Your task to perform on an android device: When is my next appointment? Image 0: 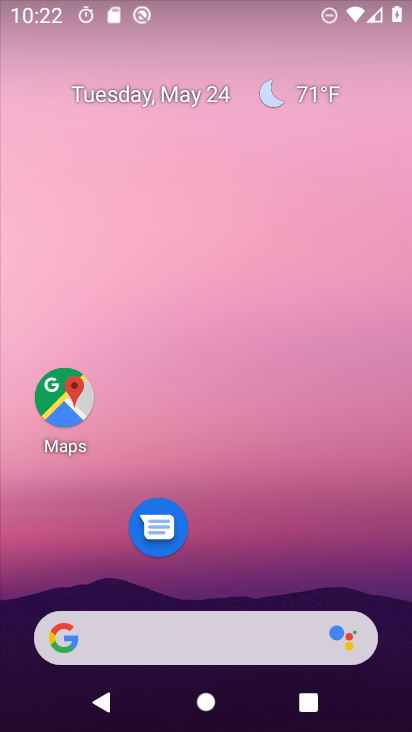
Step 0: drag from (279, 515) to (326, 25)
Your task to perform on an android device: When is my next appointment? Image 1: 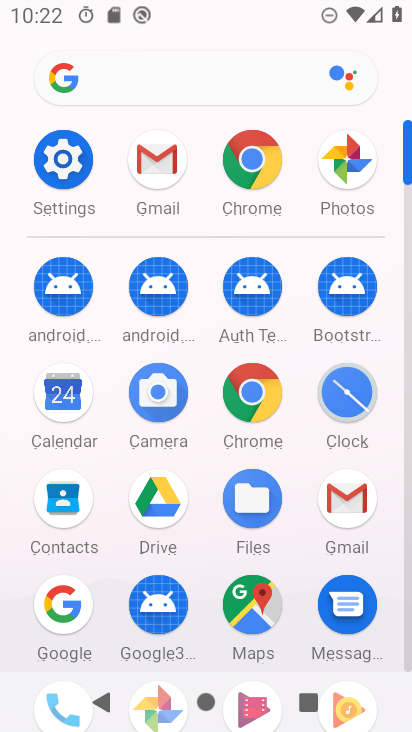
Step 1: click (53, 398)
Your task to perform on an android device: When is my next appointment? Image 2: 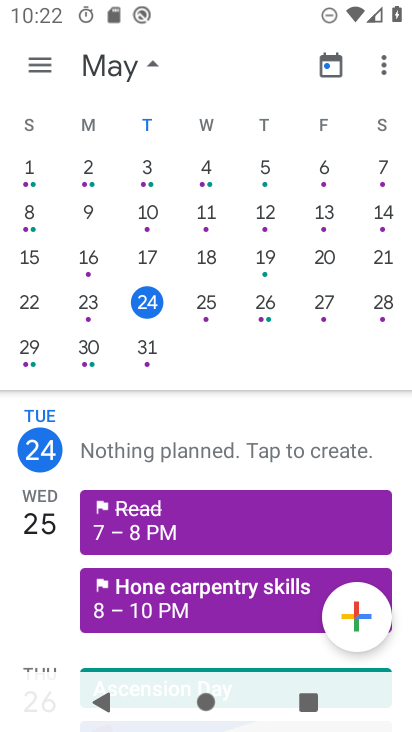
Step 2: click (274, 309)
Your task to perform on an android device: When is my next appointment? Image 3: 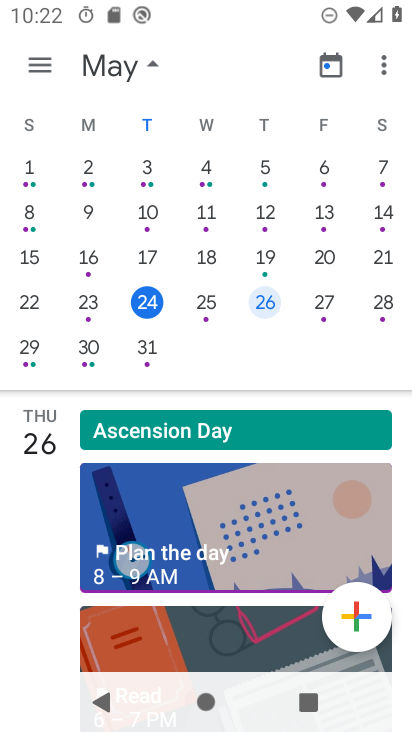
Step 3: task complete